Your task to perform on an android device: move a message to another label in the gmail app Image 0: 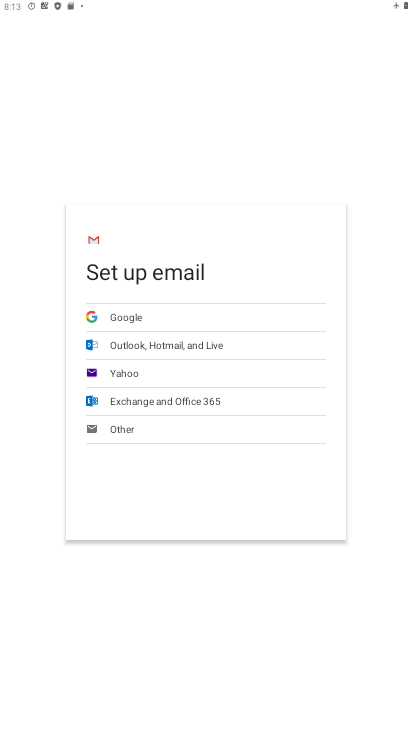
Step 0: press home button
Your task to perform on an android device: move a message to another label in the gmail app Image 1: 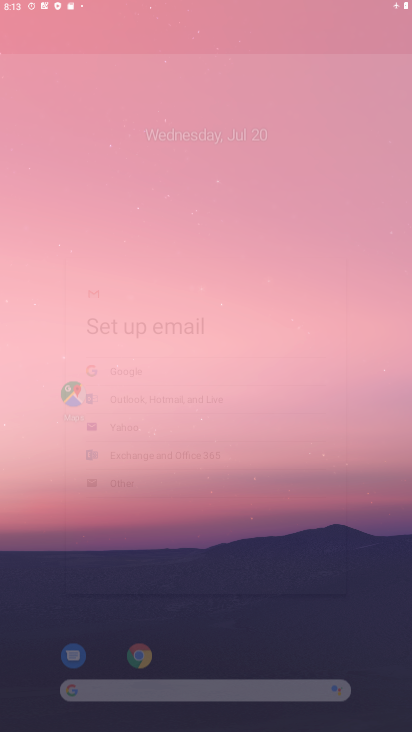
Step 1: drag from (384, 721) to (237, 54)
Your task to perform on an android device: move a message to another label in the gmail app Image 2: 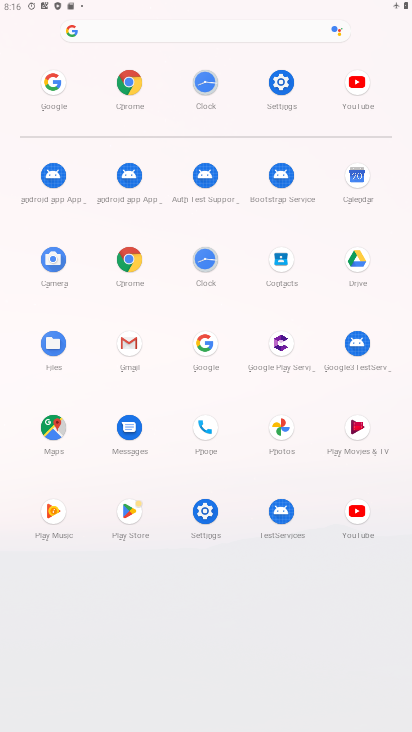
Step 2: click (131, 343)
Your task to perform on an android device: move a message to another label in the gmail app Image 3: 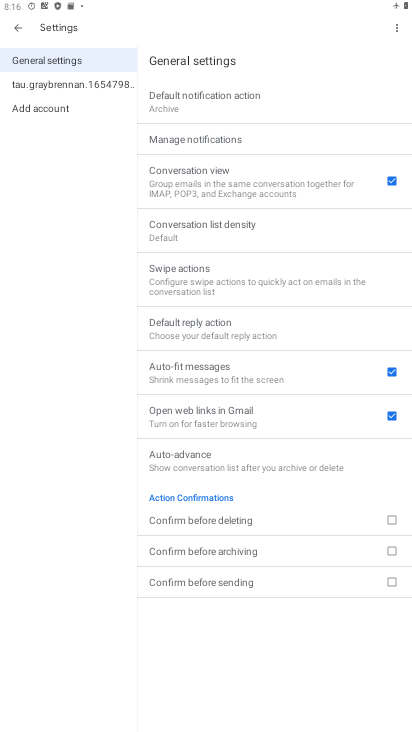
Step 3: task complete